Your task to perform on an android device: turn on showing notifications on the lock screen Image 0: 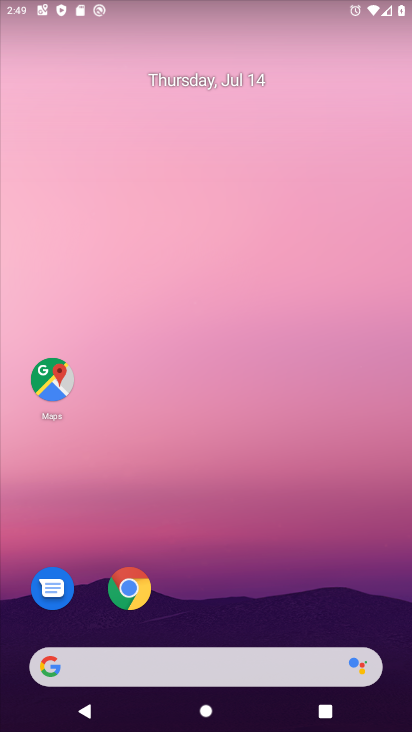
Step 0: drag from (285, 549) to (256, 105)
Your task to perform on an android device: turn on showing notifications on the lock screen Image 1: 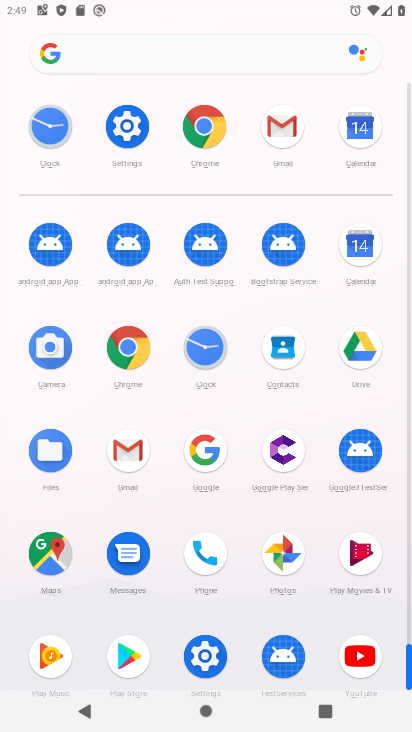
Step 1: click (124, 114)
Your task to perform on an android device: turn on showing notifications on the lock screen Image 2: 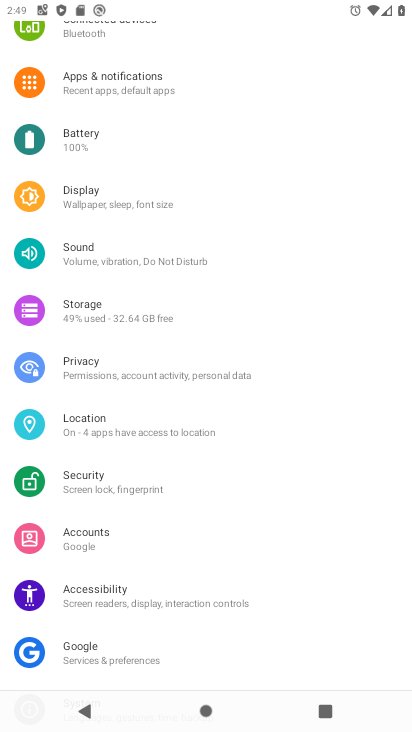
Step 2: drag from (115, 84) to (113, 263)
Your task to perform on an android device: turn on showing notifications on the lock screen Image 3: 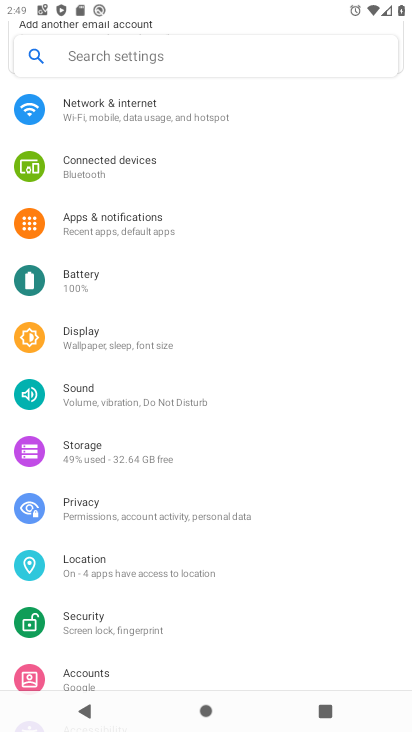
Step 3: click (111, 209)
Your task to perform on an android device: turn on showing notifications on the lock screen Image 4: 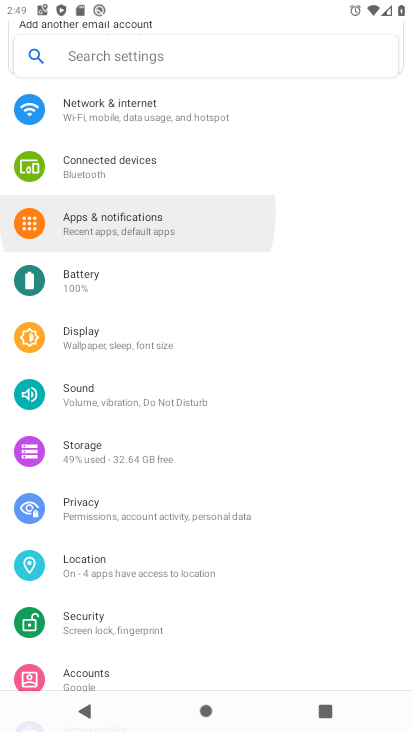
Step 4: click (111, 218)
Your task to perform on an android device: turn on showing notifications on the lock screen Image 5: 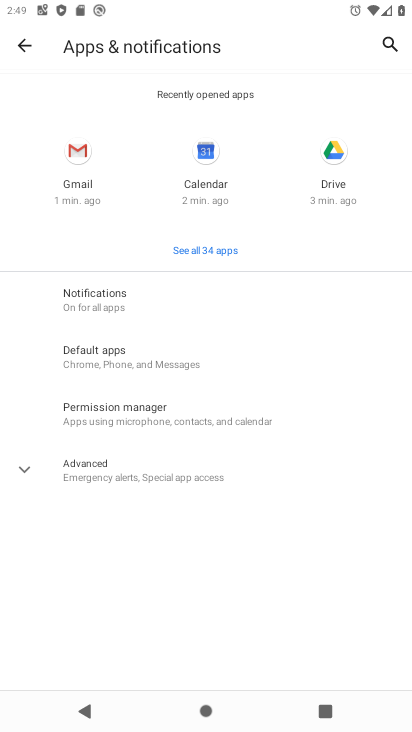
Step 5: click (115, 284)
Your task to perform on an android device: turn on showing notifications on the lock screen Image 6: 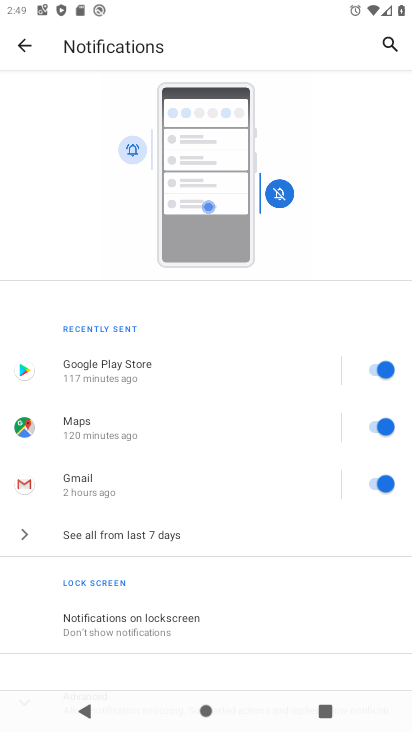
Step 6: click (145, 302)
Your task to perform on an android device: turn on showing notifications on the lock screen Image 7: 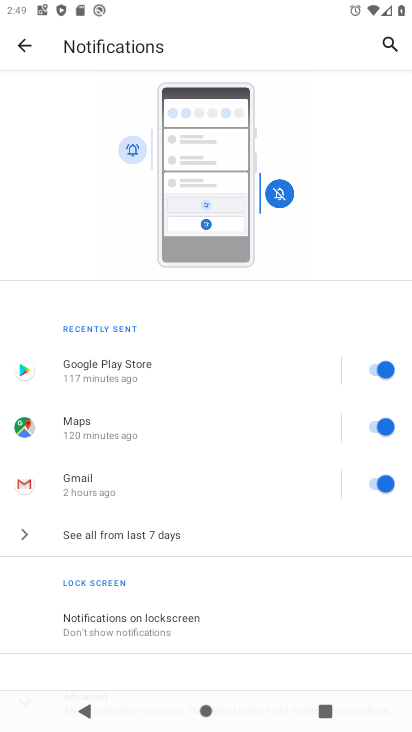
Step 7: click (189, 619)
Your task to perform on an android device: turn on showing notifications on the lock screen Image 8: 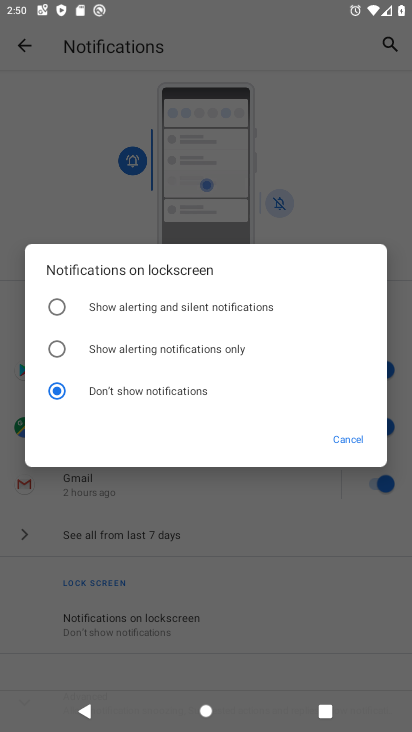
Step 8: click (126, 314)
Your task to perform on an android device: turn on showing notifications on the lock screen Image 9: 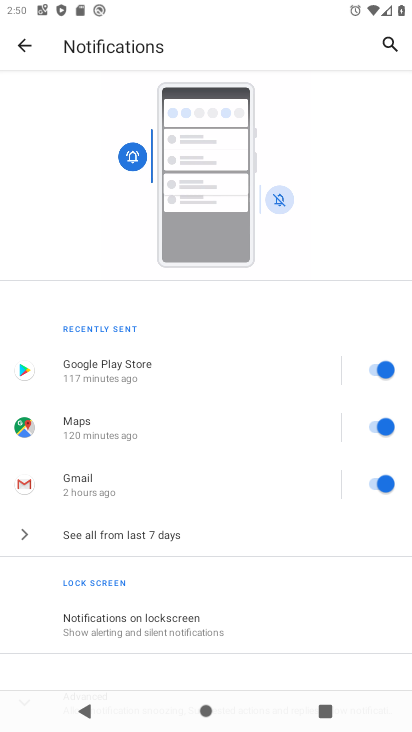
Step 9: task complete